Your task to perform on an android device: Empty the shopping cart on ebay.com. Add logitech g910 to the cart on ebay.com Image 0: 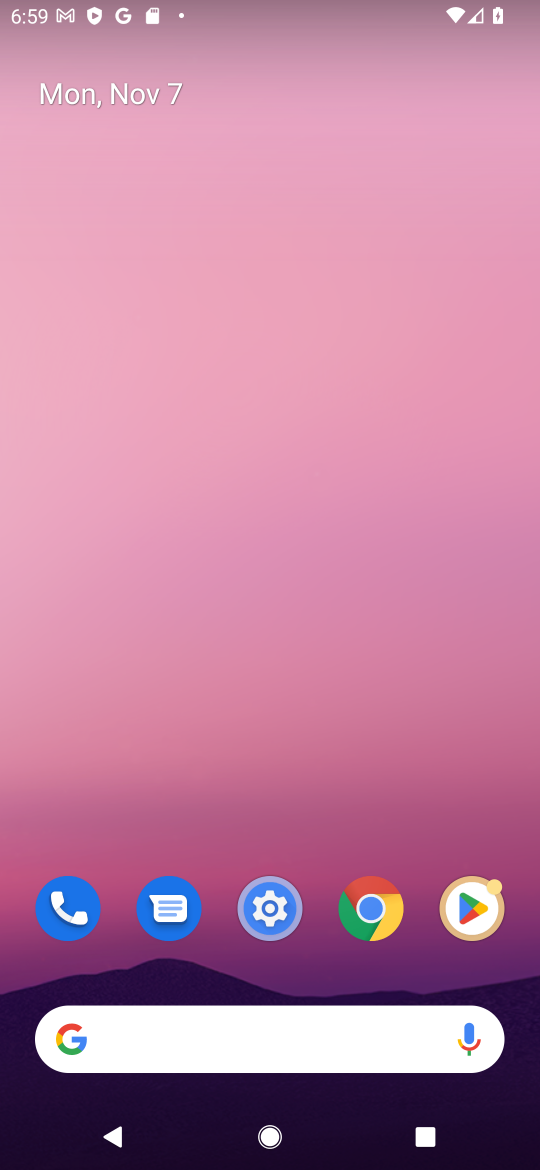
Step 0: press home button
Your task to perform on an android device: Empty the shopping cart on ebay.com. Add logitech g910 to the cart on ebay.com Image 1: 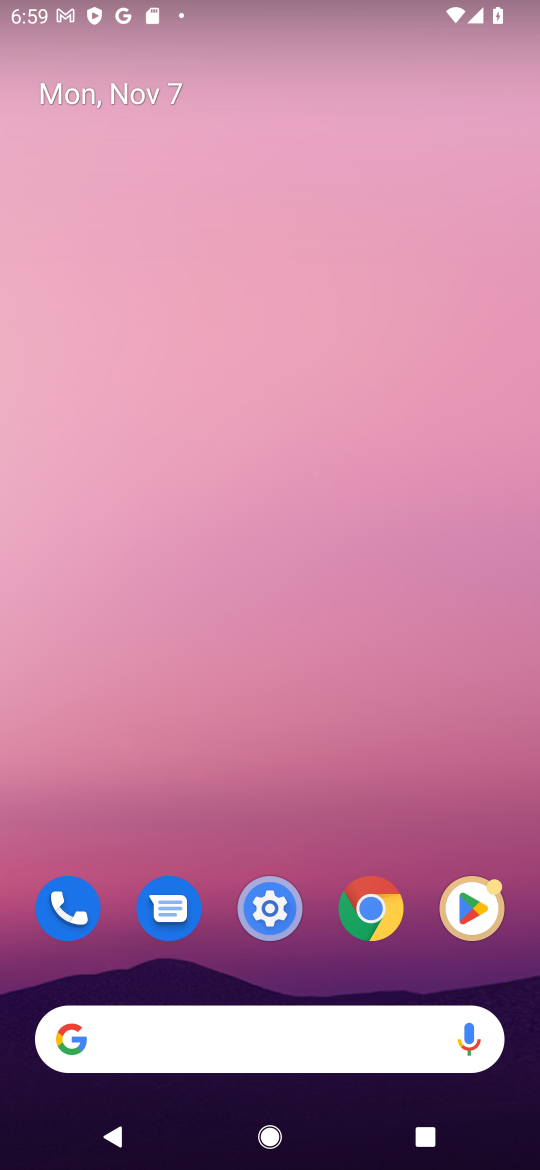
Step 1: click (149, 1049)
Your task to perform on an android device: Empty the shopping cart on ebay.com. Add logitech g910 to the cart on ebay.com Image 2: 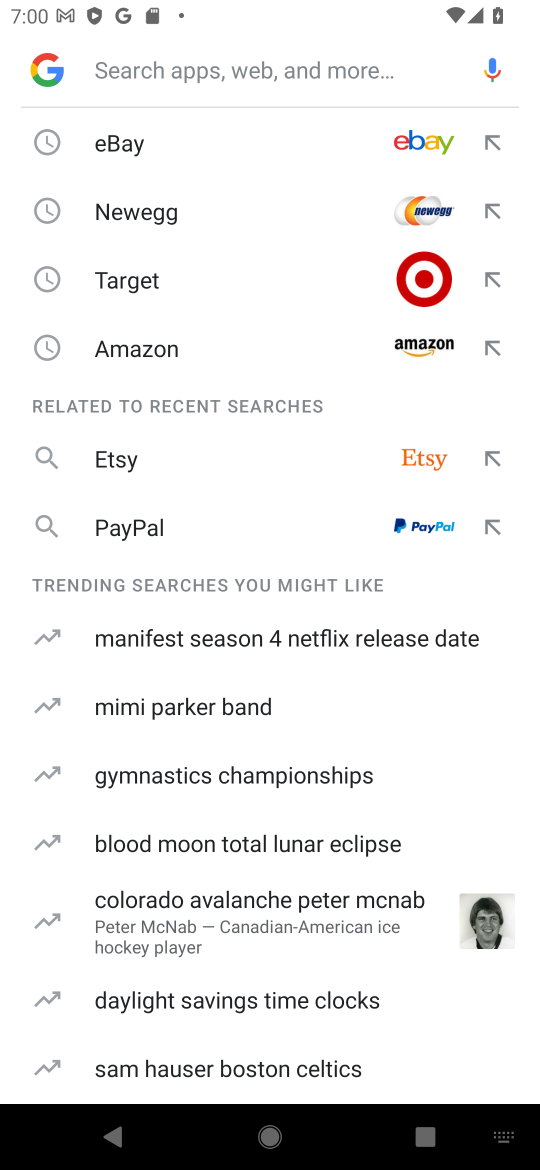
Step 2: click (254, 136)
Your task to perform on an android device: Empty the shopping cart on ebay.com. Add logitech g910 to the cart on ebay.com Image 3: 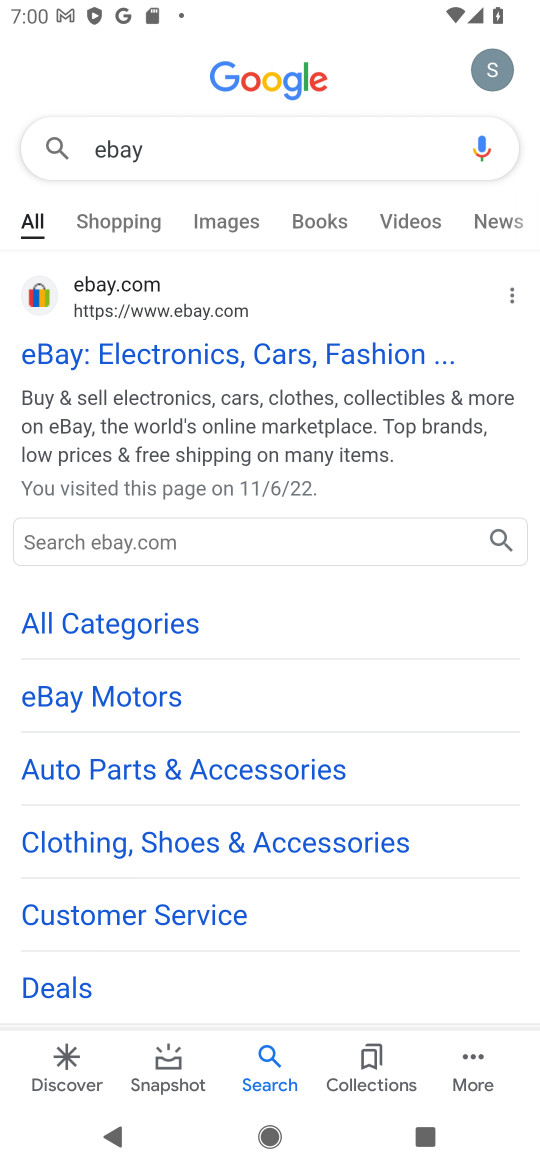
Step 3: click (156, 344)
Your task to perform on an android device: Empty the shopping cart on ebay.com. Add logitech g910 to the cart on ebay.com Image 4: 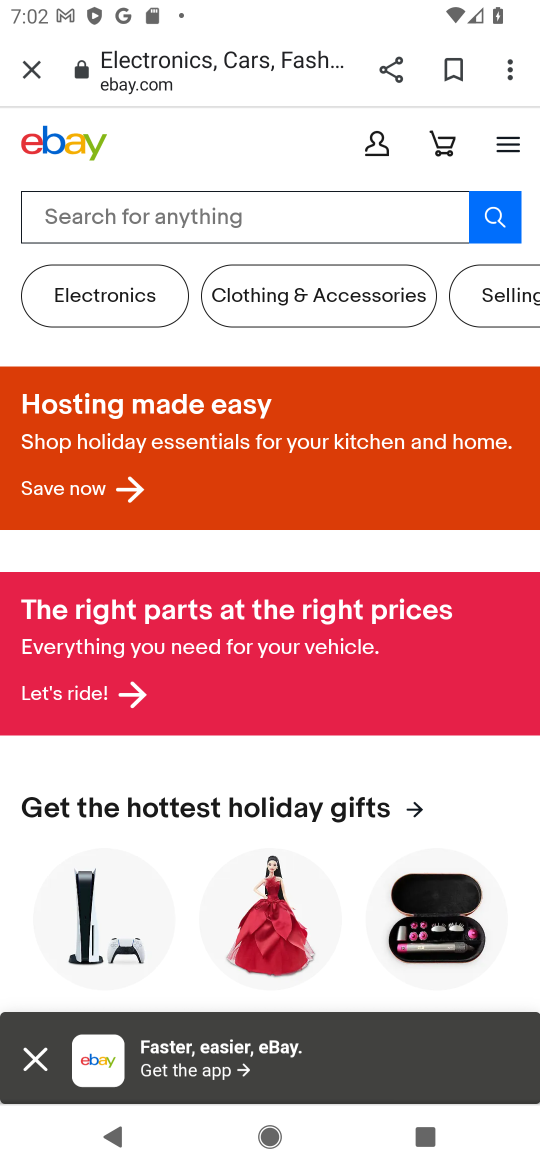
Step 4: task complete